Your task to perform on an android device: set default search engine in the chrome app Image 0: 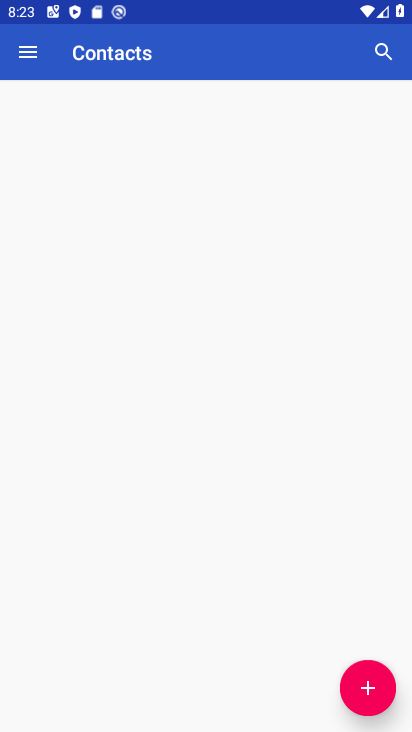
Step 0: press home button
Your task to perform on an android device: set default search engine in the chrome app Image 1: 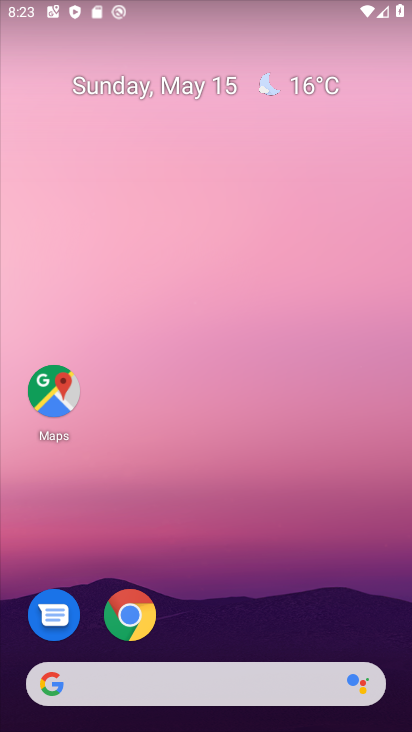
Step 1: click (139, 625)
Your task to perform on an android device: set default search engine in the chrome app Image 2: 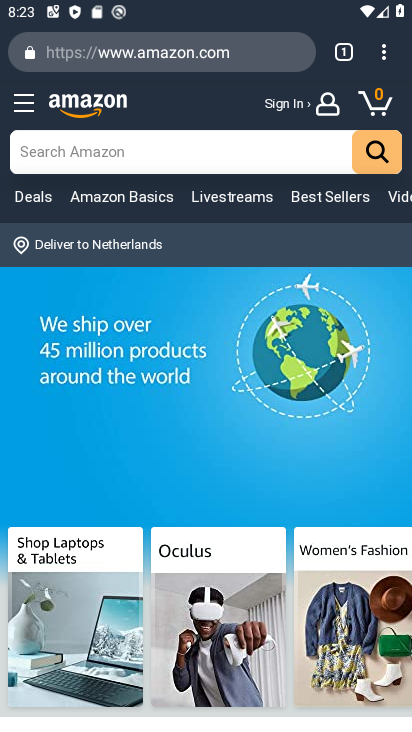
Step 2: click (386, 51)
Your task to perform on an android device: set default search engine in the chrome app Image 3: 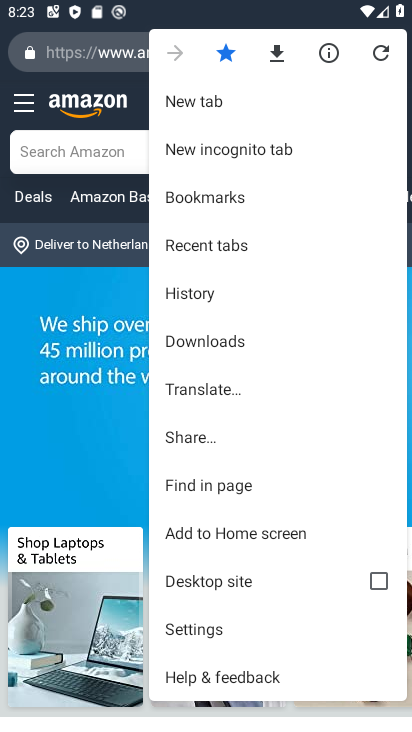
Step 3: click (195, 619)
Your task to perform on an android device: set default search engine in the chrome app Image 4: 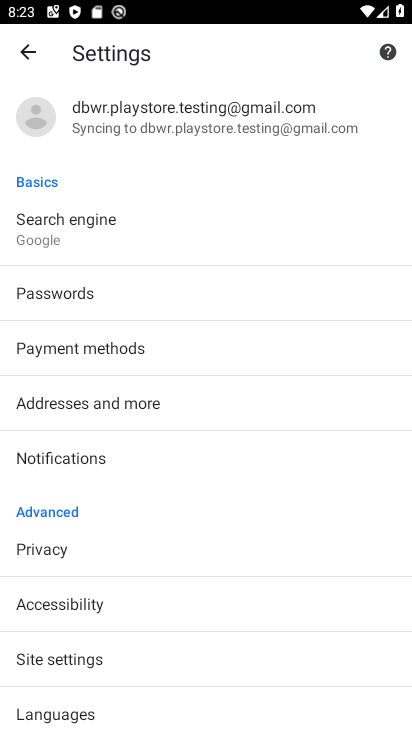
Step 4: click (141, 235)
Your task to perform on an android device: set default search engine in the chrome app Image 5: 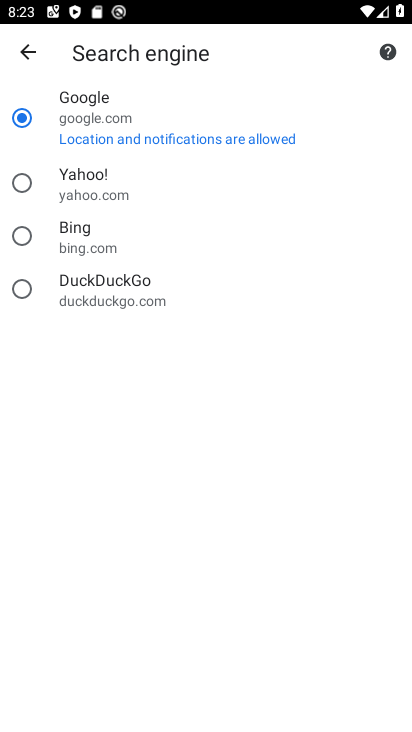
Step 5: click (123, 281)
Your task to perform on an android device: set default search engine in the chrome app Image 6: 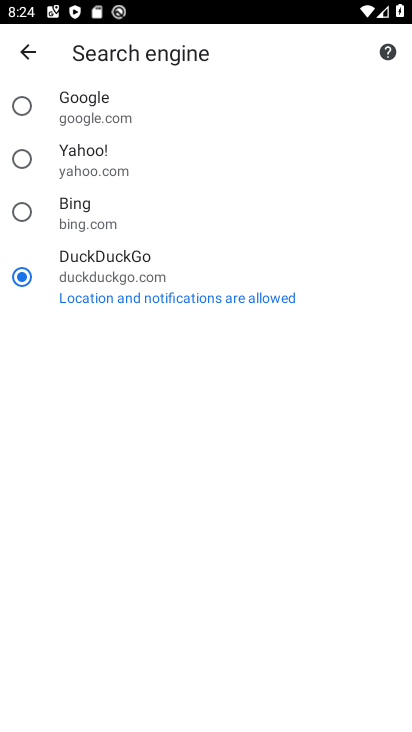
Step 6: task complete